Your task to perform on an android device: turn off airplane mode Image 0: 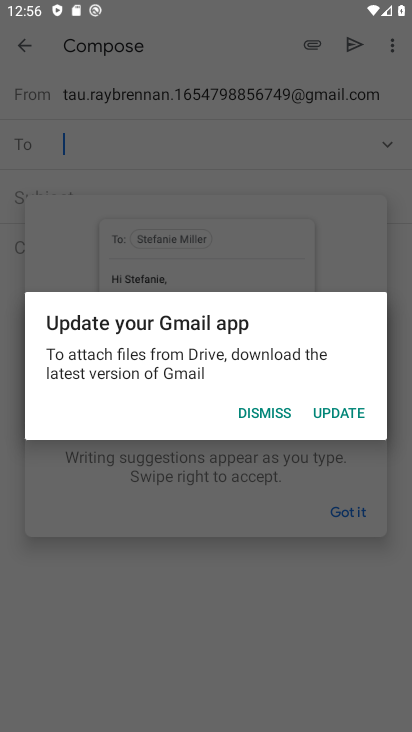
Step 0: press home button
Your task to perform on an android device: turn off airplane mode Image 1: 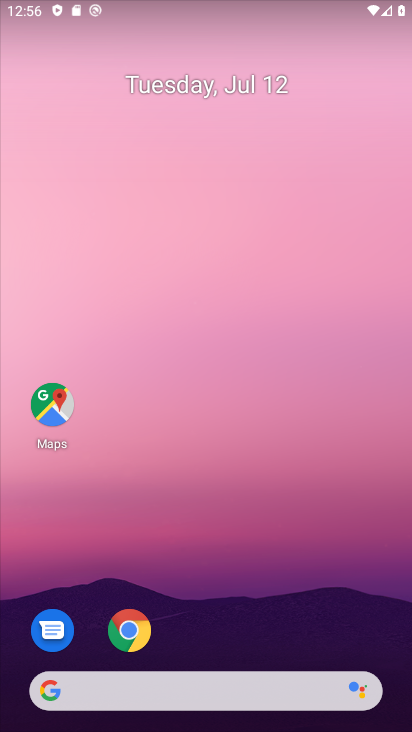
Step 1: drag from (371, 628) to (325, 128)
Your task to perform on an android device: turn off airplane mode Image 2: 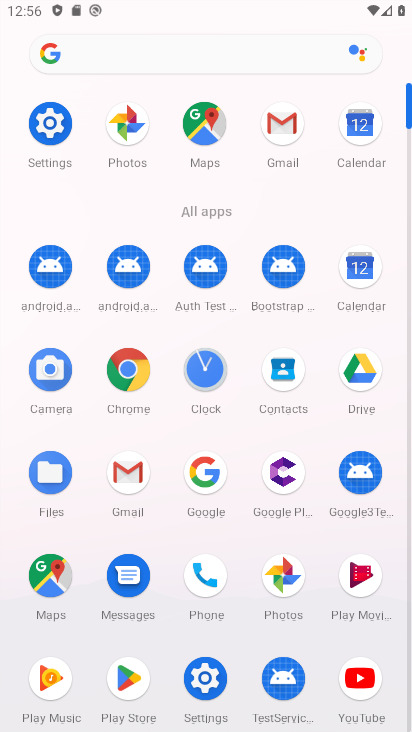
Step 2: click (204, 679)
Your task to perform on an android device: turn off airplane mode Image 3: 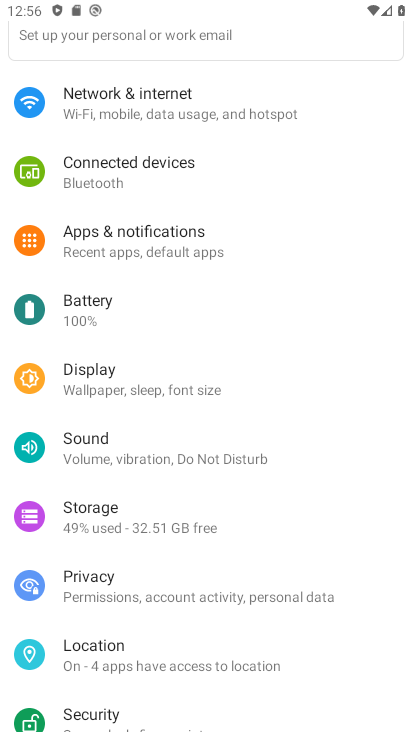
Step 3: click (101, 97)
Your task to perform on an android device: turn off airplane mode Image 4: 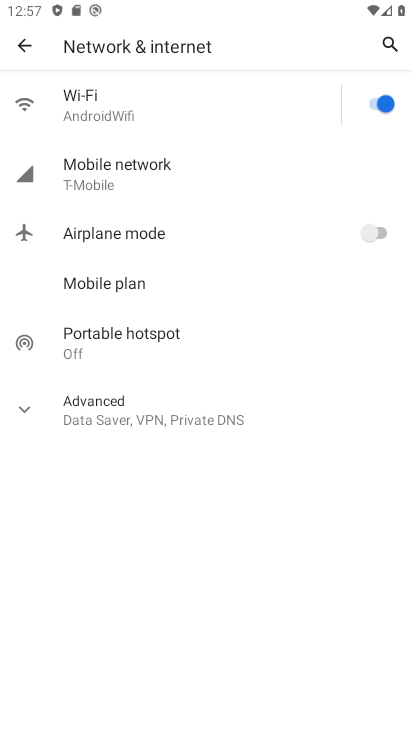
Step 4: task complete